Your task to perform on an android device: Play the last video I watched on Youtube Image 0: 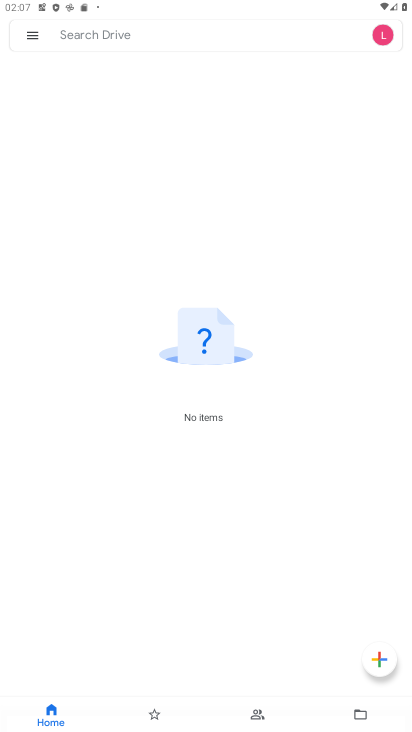
Step 0: press home button
Your task to perform on an android device: Play the last video I watched on Youtube Image 1: 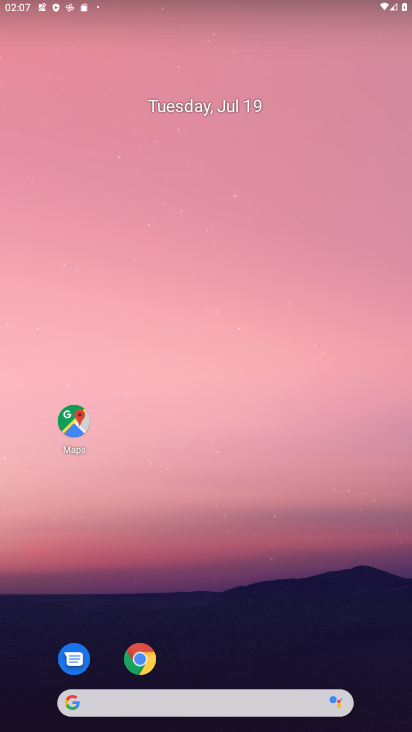
Step 1: drag from (323, 588) to (284, 6)
Your task to perform on an android device: Play the last video I watched on Youtube Image 2: 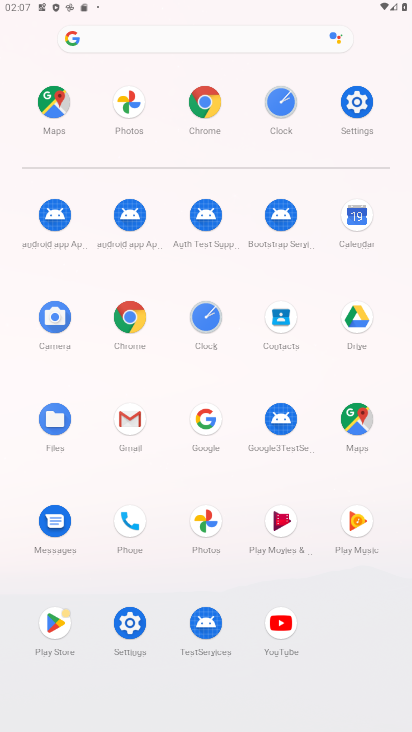
Step 2: click (278, 617)
Your task to perform on an android device: Play the last video I watched on Youtube Image 3: 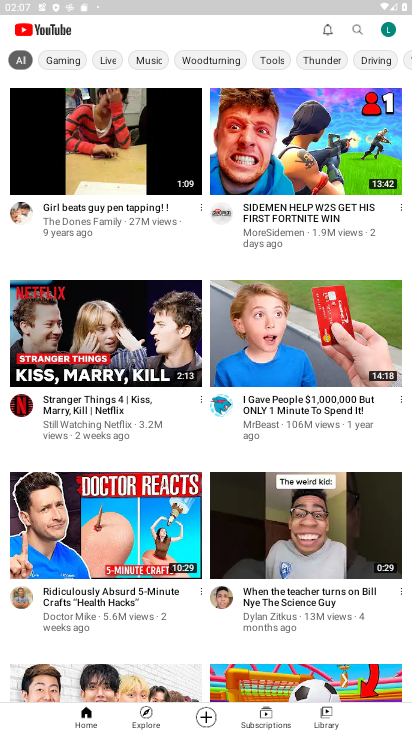
Step 3: click (326, 712)
Your task to perform on an android device: Play the last video I watched on Youtube Image 4: 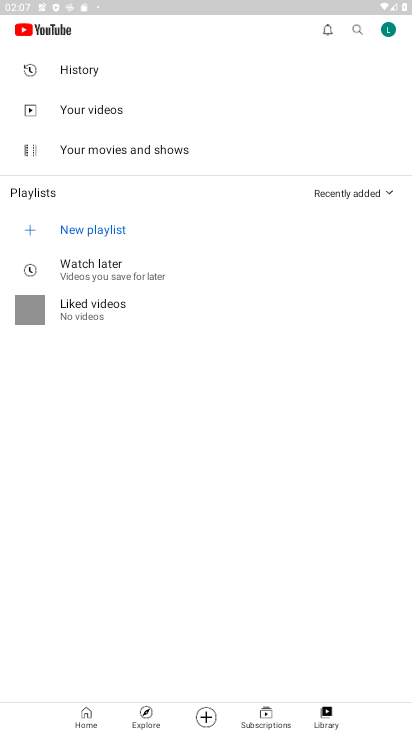
Step 4: task complete